Your task to perform on an android device: Open the stopwatch Image 0: 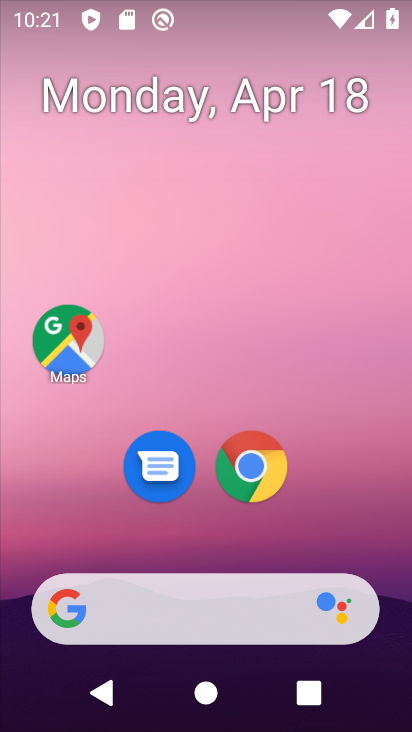
Step 0: drag from (229, 460) to (229, 114)
Your task to perform on an android device: Open the stopwatch Image 1: 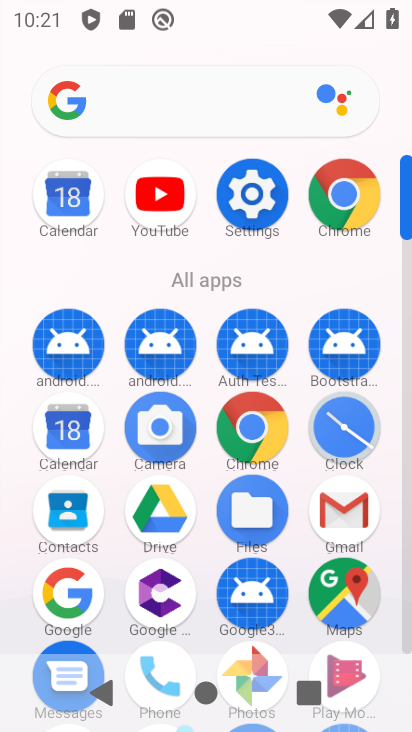
Step 1: click (361, 450)
Your task to perform on an android device: Open the stopwatch Image 2: 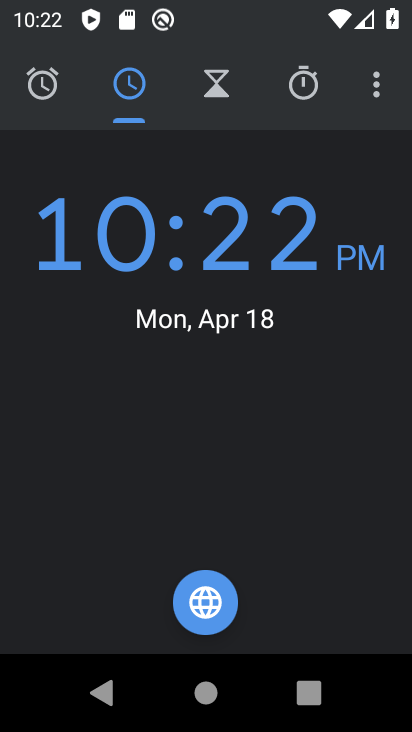
Step 2: click (317, 95)
Your task to perform on an android device: Open the stopwatch Image 3: 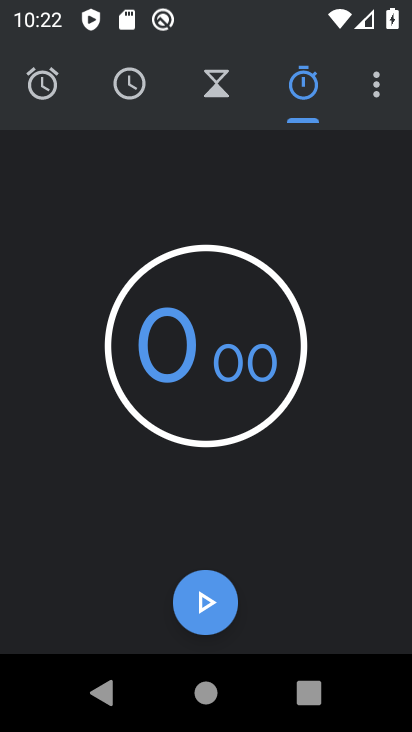
Step 3: click (211, 607)
Your task to perform on an android device: Open the stopwatch Image 4: 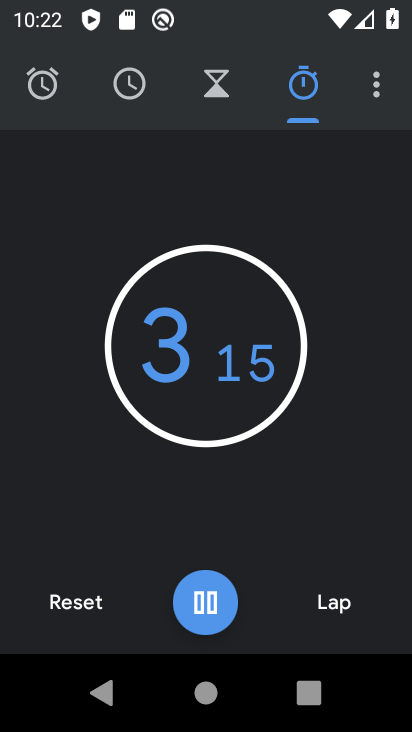
Step 4: task complete